Your task to perform on an android device: create a new album in the google photos Image 0: 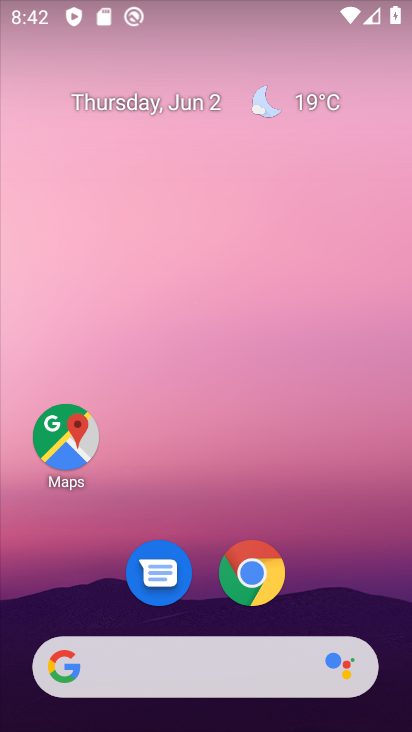
Step 0: drag from (329, 600) to (297, 23)
Your task to perform on an android device: create a new album in the google photos Image 1: 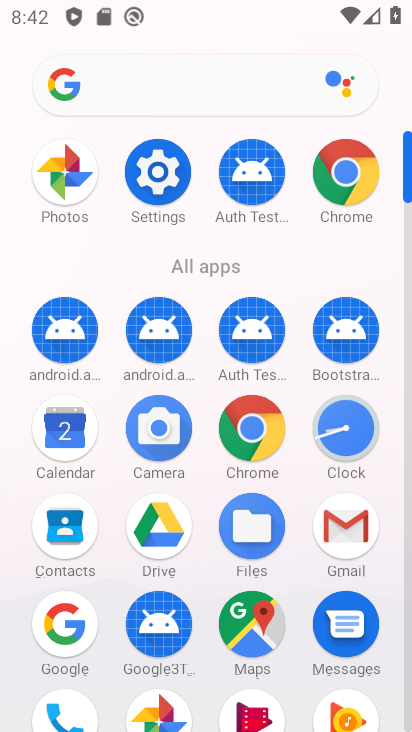
Step 1: click (69, 175)
Your task to perform on an android device: create a new album in the google photos Image 2: 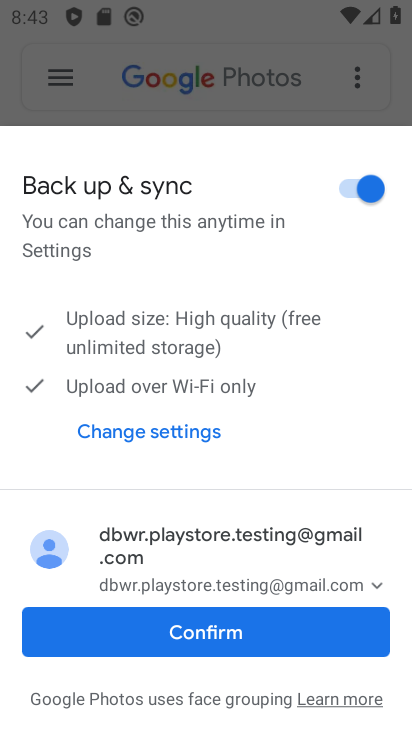
Step 2: click (246, 639)
Your task to perform on an android device: create a new album in the google photos Image 3: 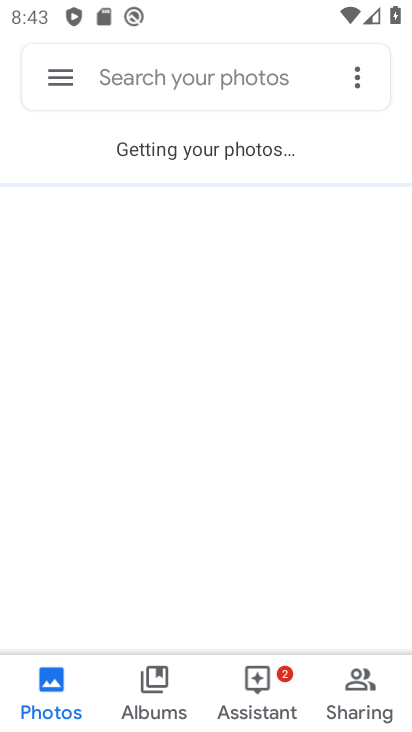
Step 3: click (140, 697)
Your task to perform on an android device: create a new album in the google photos Image 4: 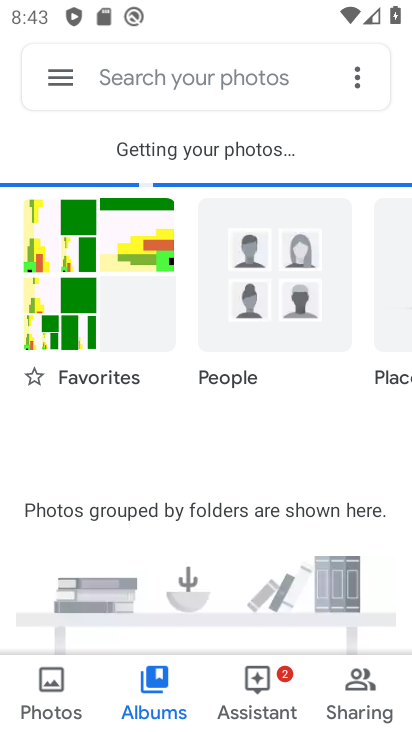
Step 4: click (350, 79)
Your task to perform on an android device: create a new album in the google photos Image 5: 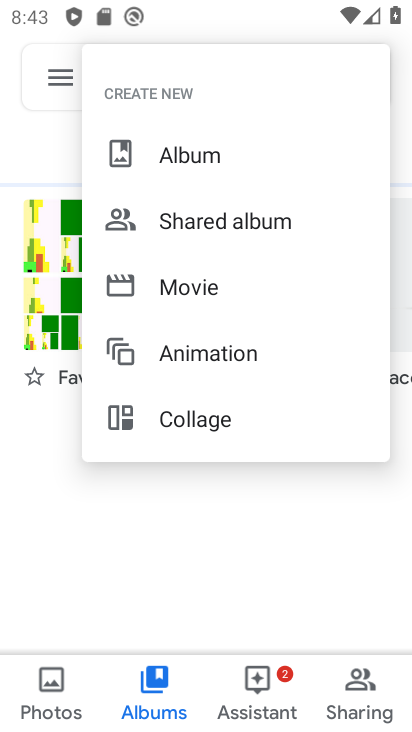
Step 5: click (230, 157)
Your task to perform on an android device: create a new album in the google photos Image 6: 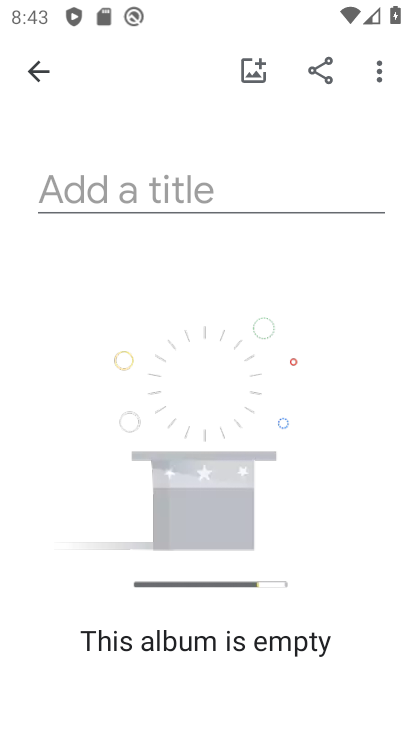
Step 6: click (156, 187)
Your task to perform on an android device: create a new album in the google photos Image 7: 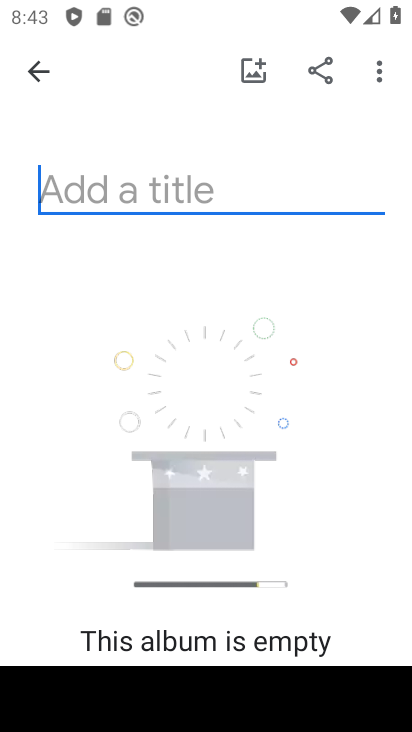
Step 7: type "yuiokjhnm"
Your task to perform on an android device: create a new album in the google photos Image 8: 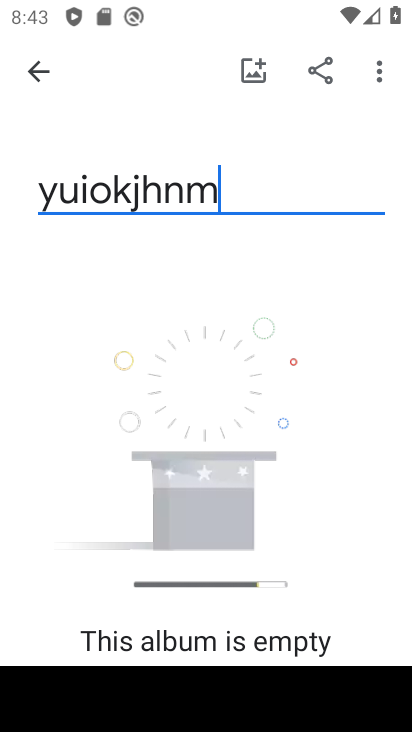
Step 8: click (241, 71)
Your task to perform on an android device: create a new album in the google photos Image 9: 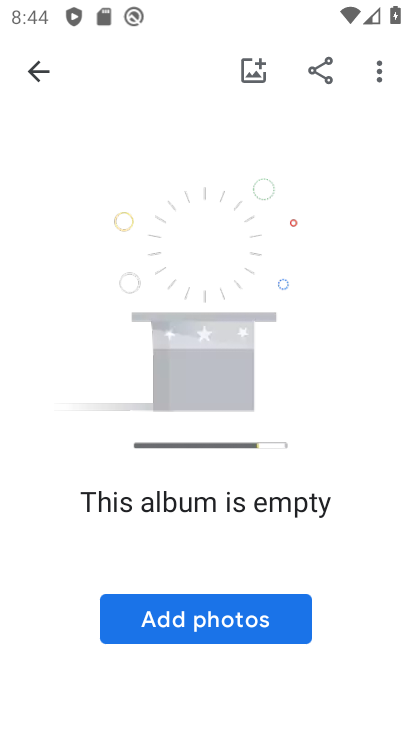
Step 9: click (186, 605)
Your task to perform on an android device: create a new album in the google photos Image 10: 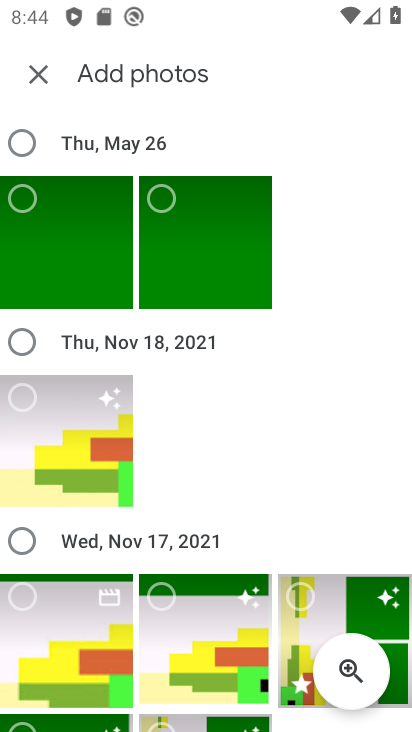
Step 10: click (36, 402)
Your task to perform on an android device: create a new album in the google photos Image 11: 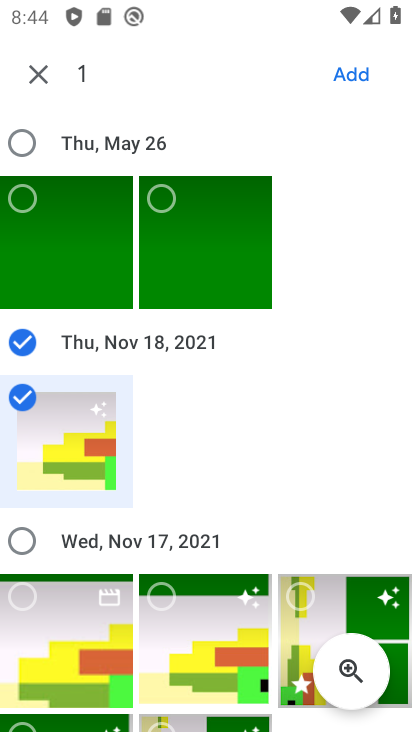
Step 11: click (366, 73)
Your task to perform on an android device: create a new album in the google photos Image 12: 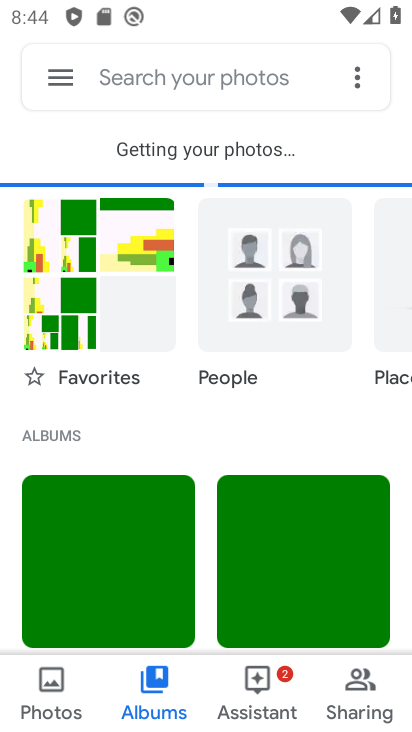
Step 12: task complete